Your task to perform on an android device: allow notifications from all sites in the chrome app Image 0: 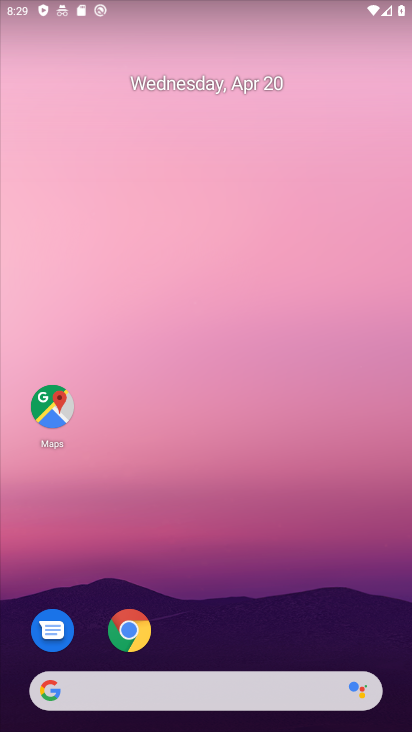
Step 0: click (135, 624)
Your task to perform on an android device: allow notifications from all sites in the chrome app Image 1: 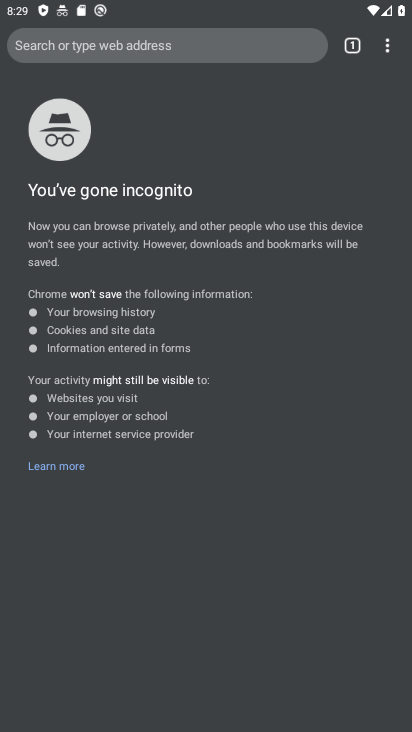
Step 1: click (387, 47)
Your task to perform on an android device: allow notifications from all sites in the chrome app Image 2: 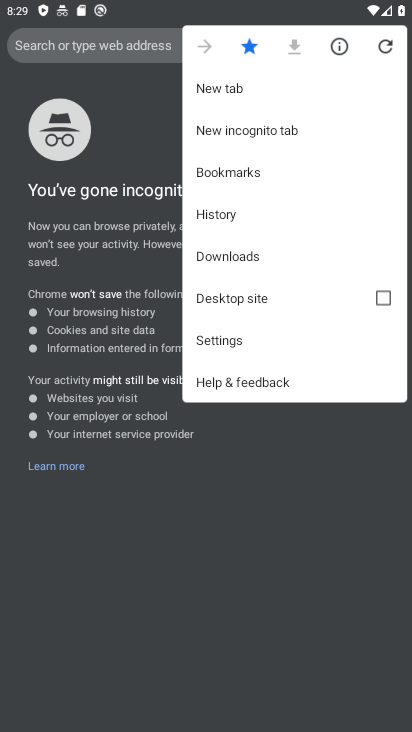
Step 2: click (221, 339)
Your task to perform on an android device: allow notifications from all sites in the chrome app Image 3: 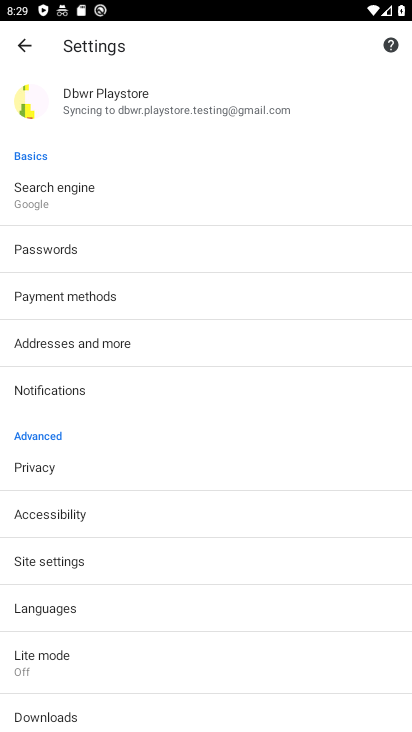
Step 3: click (61, 557)
Your task to perform on an android device: allow notifications from all sites in the chrome app Image 4: 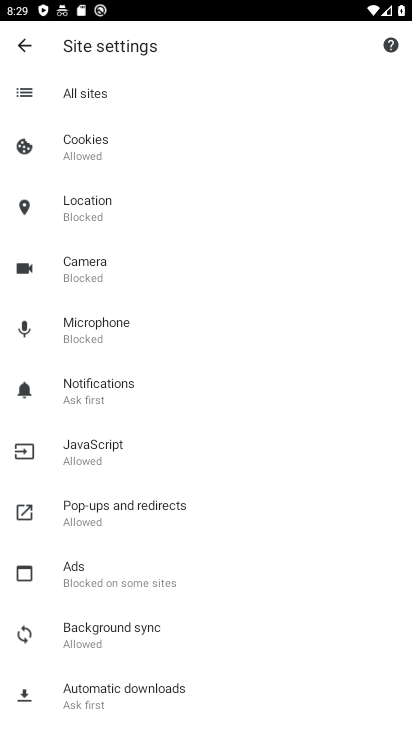
Step 4: click (103, 389)
Your task to perform on an android device: allow notifications from all sites in the chrome app Image 5: 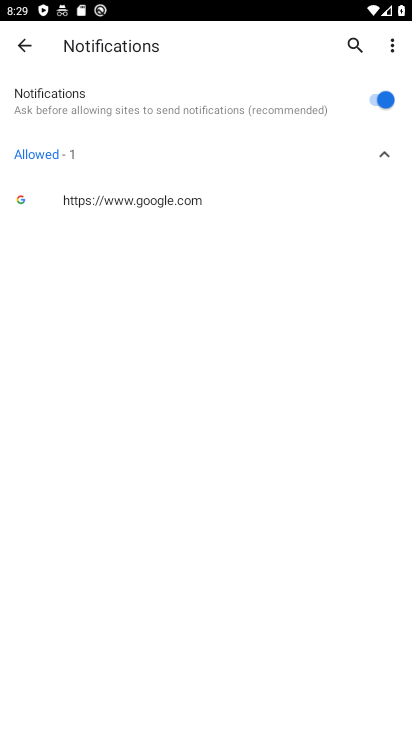
Step 5: task complete